Your task to perform on an android device: Search for sushi restaurants on Maps Image 0: 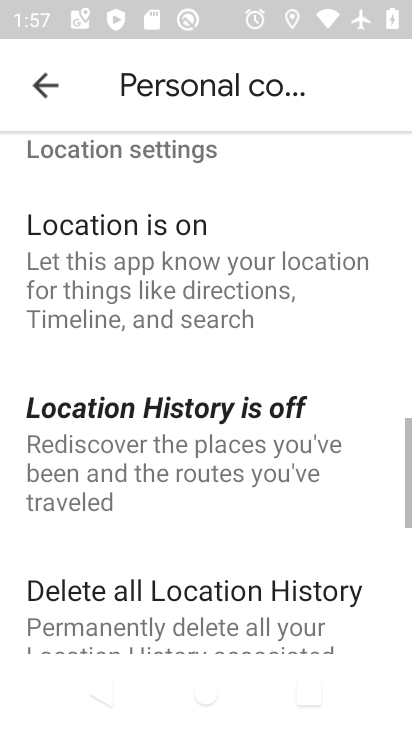
Step 0: press home button
Your task to perform on an android device: Search for sushi restaurants on Maps Image 1: 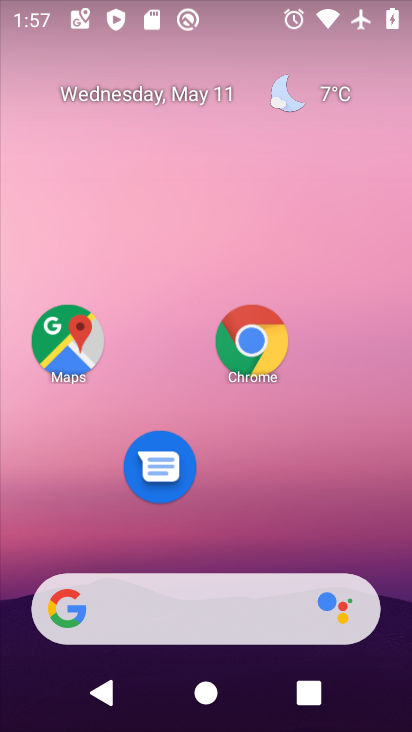
Step 1: click (77, 353)
Your task to perform on an android device: Search for sushi restaurants on Maps Image 2: 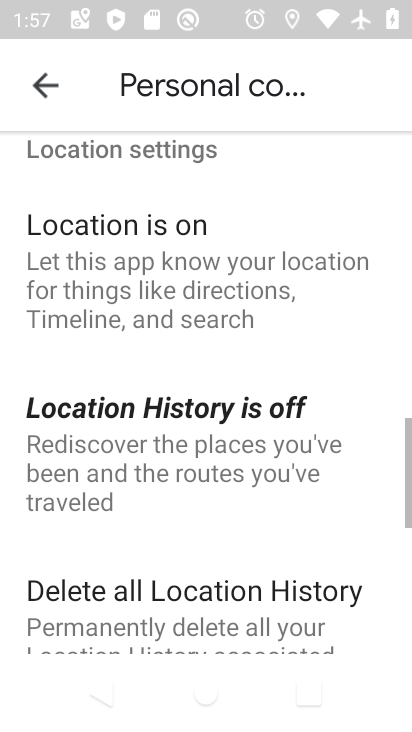
Step 2: click (46, 85)
Your task to perform on an android device: Search for sushi restaurants on Maps Image 3: 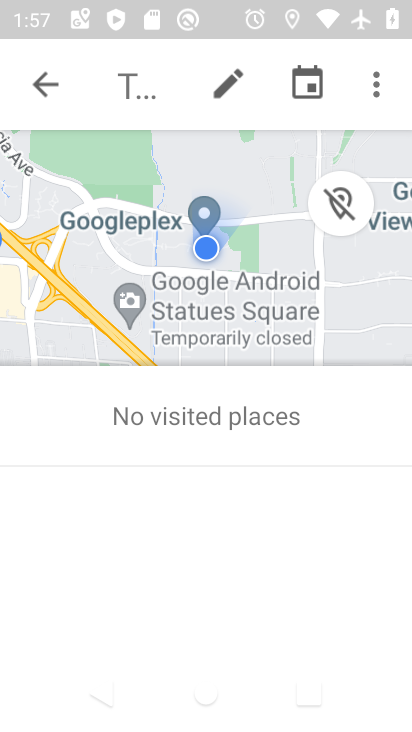
Step 3: click (46, 86)
Your task to perform on an android device: Search for sushi restaurants on Maps Image 4: 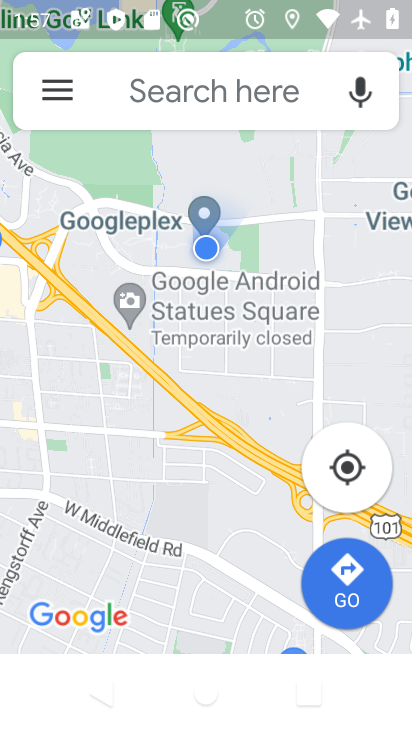
Step 4: click (161, 86)
Your task to perform on an android device: Search for sushi restaurants on Maps Image 5: 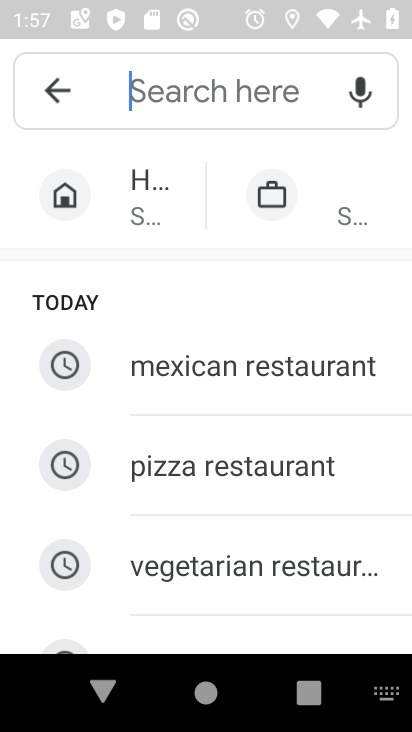
Step 5: drag from (208, 529) to (340, 224)
Your task to perform on an android device: Search for sushi restaurants on Maps Image 6: 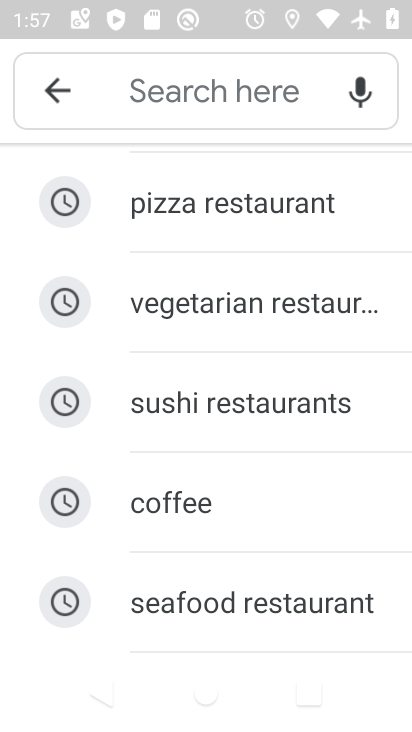
Step 6: click (240, 406)
Your task to perform on an android device: Search for sushi restaurants on Maps Image 7: 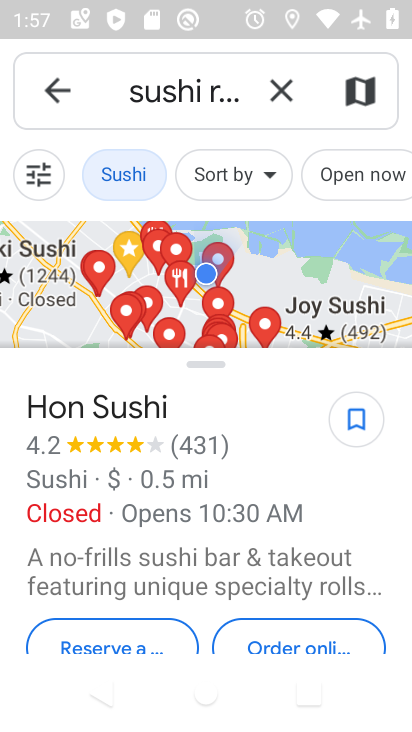
Step 7: task complete